Your task to perform on an android device: Open internet settings Image 0: 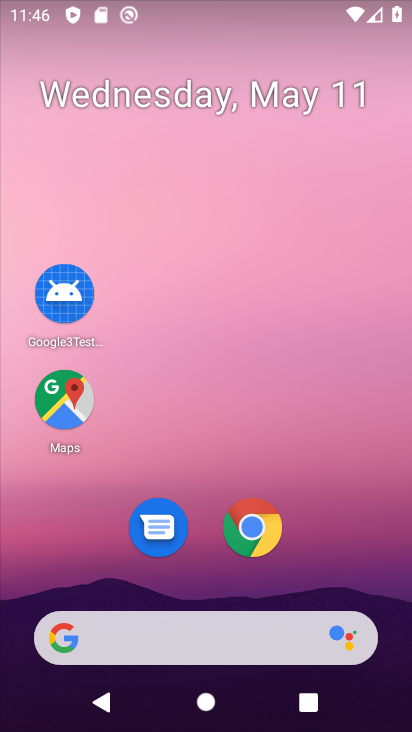
Step 0: drag from (226, 589) to (134, 72)
Your task to perform on an android device: Open internet settings Image 1: 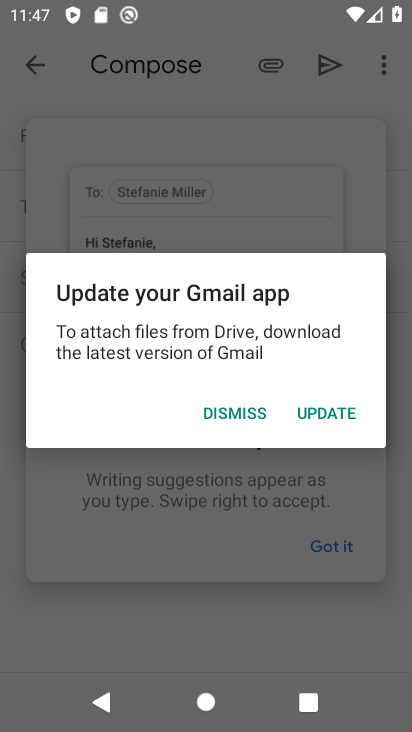
Step 1: click (228, 405)
Your task to perform on an android device: Open internet settings Image 2: 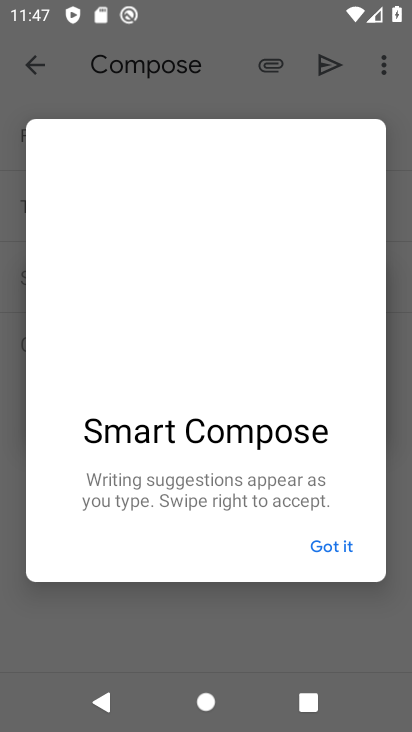
Step 2: click (321, 539)
Your task to perform on an android device: Open internet settings Image 3: 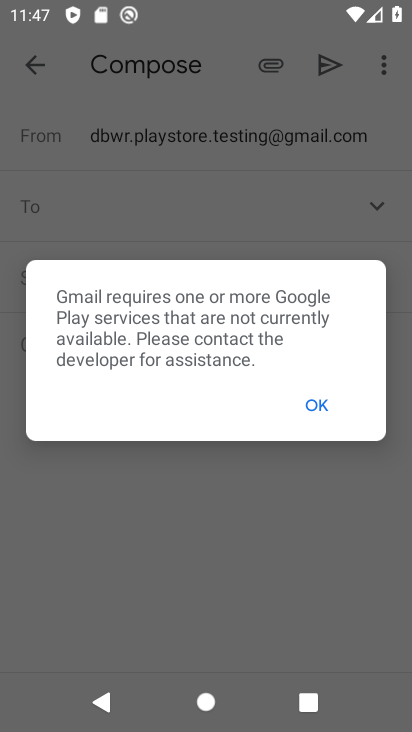
Step 3: press home button
Your task to perform on an android device: Open internet settings Image 4: 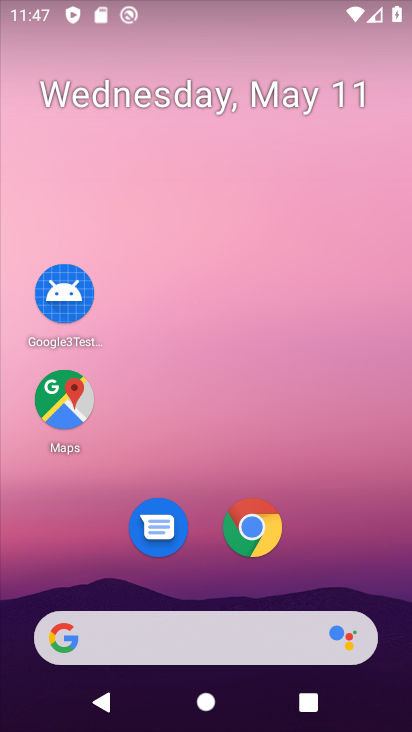
Step 4: drag from (258, 593) to (154, 22)
Your task to perform on an android device: Open internet settings Image 5: 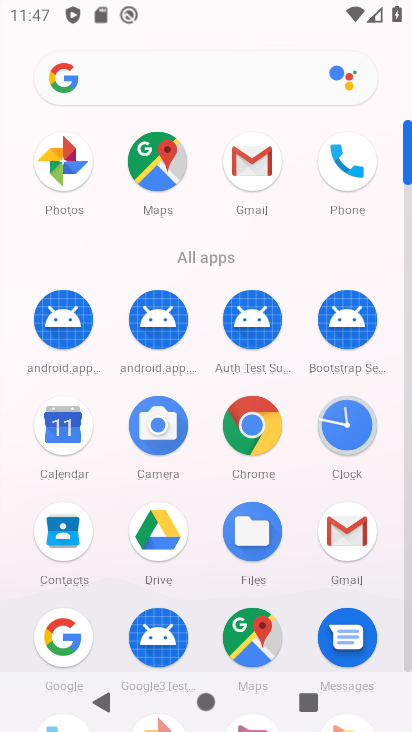
Step 5: drag from (202, 583) to (164, 92)
Your task to perform on an android device: Open internet settings Image 6: 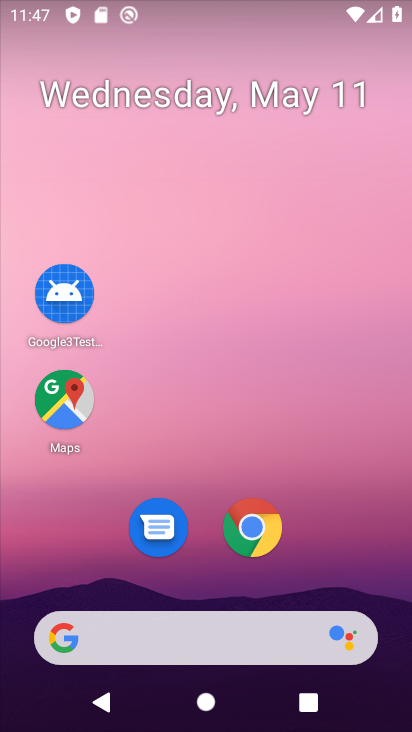
Step 6: drag from (154, 568) to (138, 162)
Your task to perform on an android device: Open internet settings Image 7: 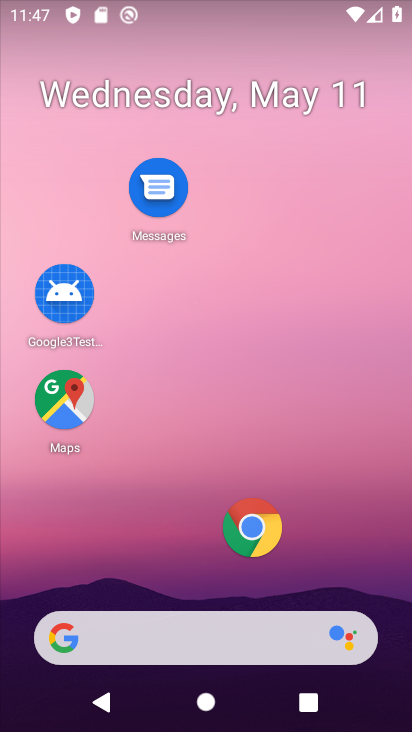
Step 7: drag from (217, 577) to (231, 6)
Your task to perform on an android device: Open internet settings Image 8: 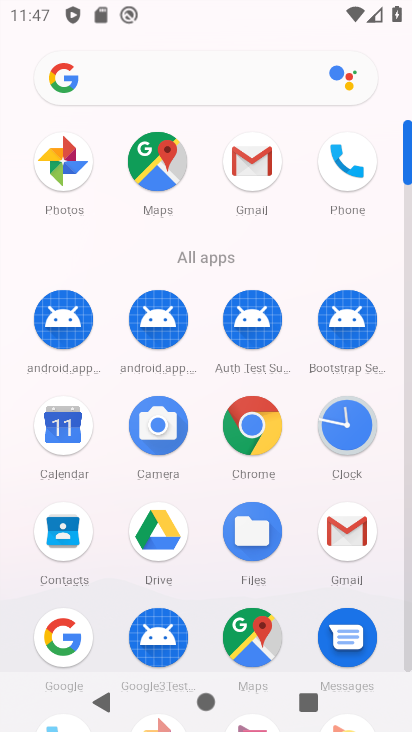
Step 8: drag from (213, 579) to (223, 98)
Your task to perform on an android device: Open internet settings Image 9: 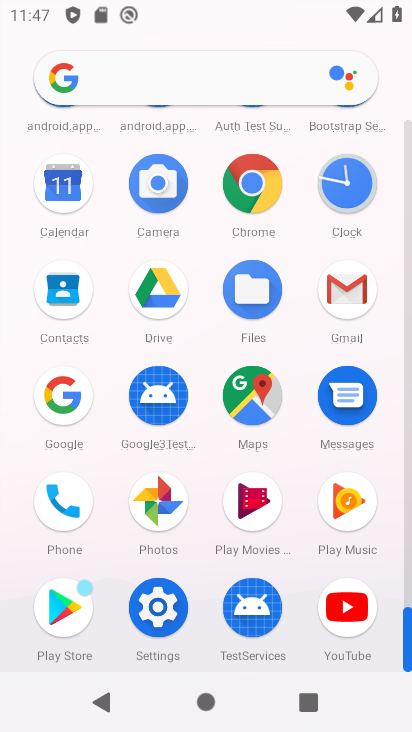
Step 9: click (166, 596)
Your task to perform on an android device: Open internet settings Image 10: 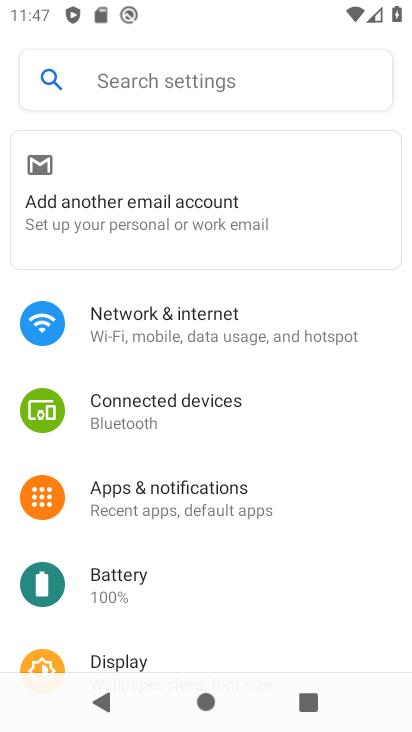
Step 10: click (177, 311)
Your task to perform on an android device: Open internet settings Image 11: 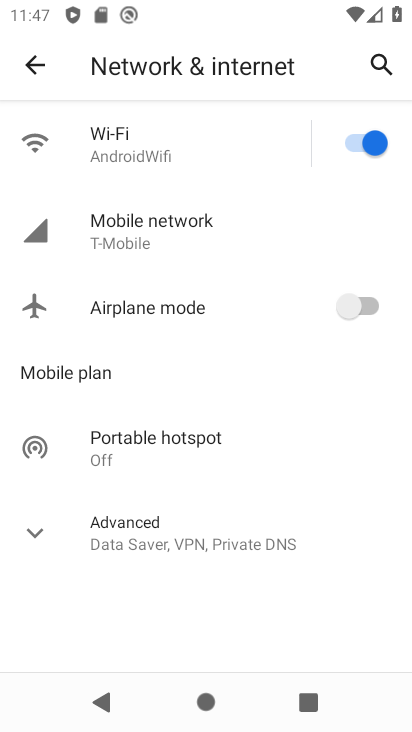
Step 11: click (162, 247)
Your task to perform on an android device: Open internet settings Image 12: 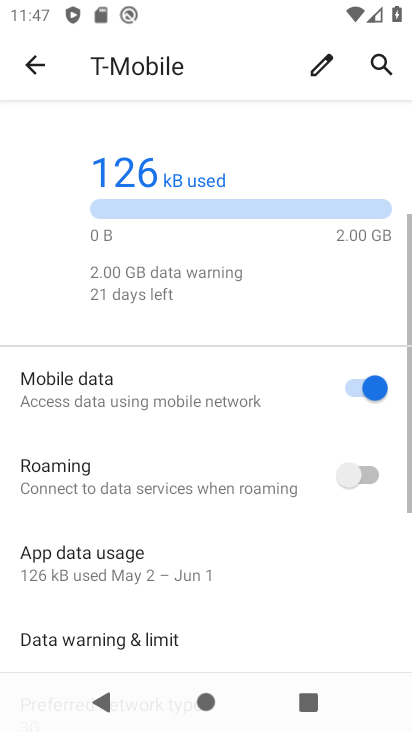
Step 12: task complete